Your task to perform on an android device: Open calendar and show me the first week of next month Image 0: 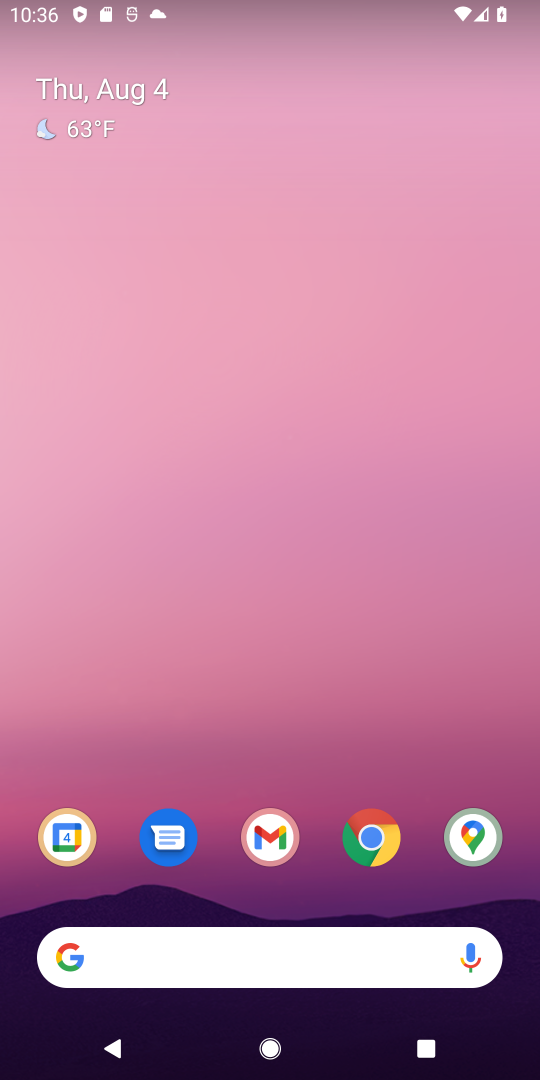
Step 0: drag from (319, 900) to (317, 1)
Your task to perform on an android device: Open calendar and show me the first week of next month Image 1: 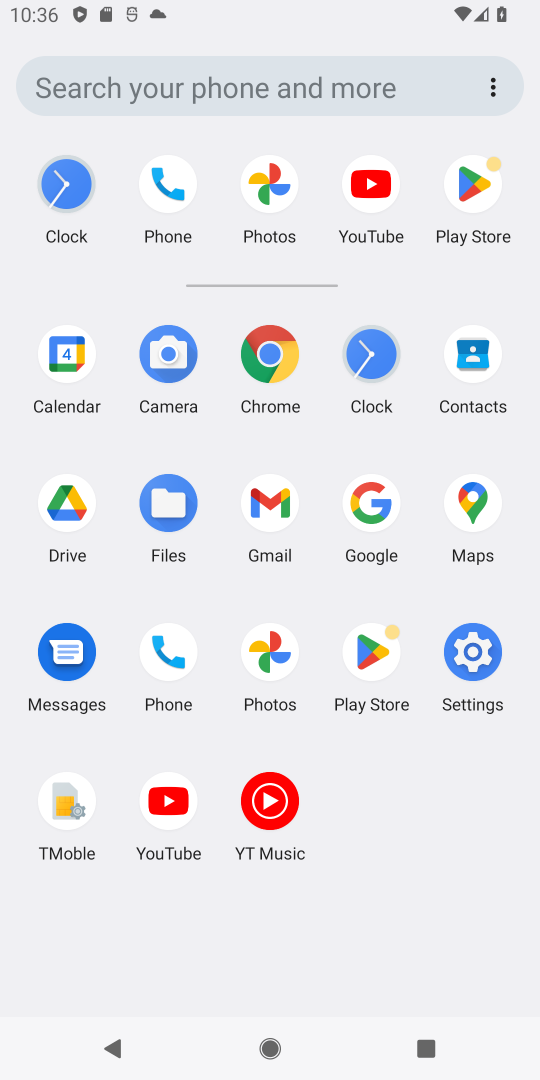
Step 1: click (59, 346)
Your task to perform on an android device: Open calendar and show me the first week of next month Image 2: 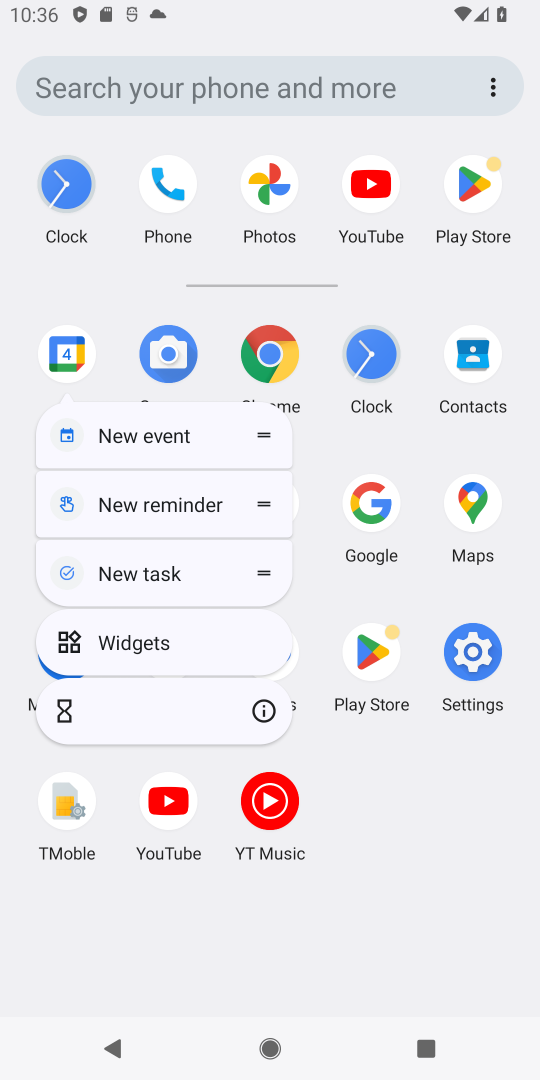
Step 2: click (63, 352)
Your task to perform on an android device: Open calendar and show me the first week of next month Image 3: 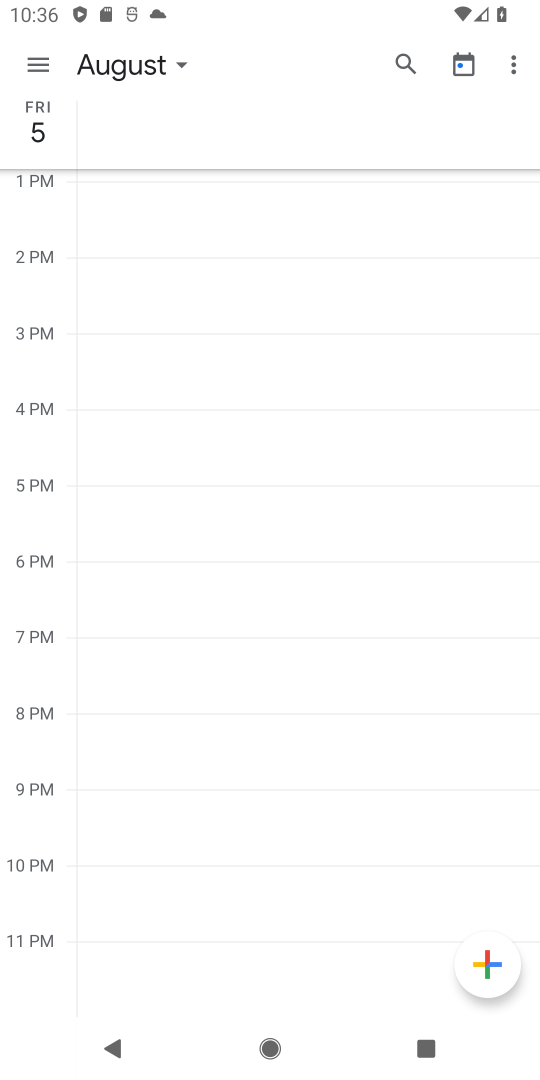
Step 3: click (43, 54)
Your task to perform on an android device: Open calendar and show me the first week of next month Image 4: 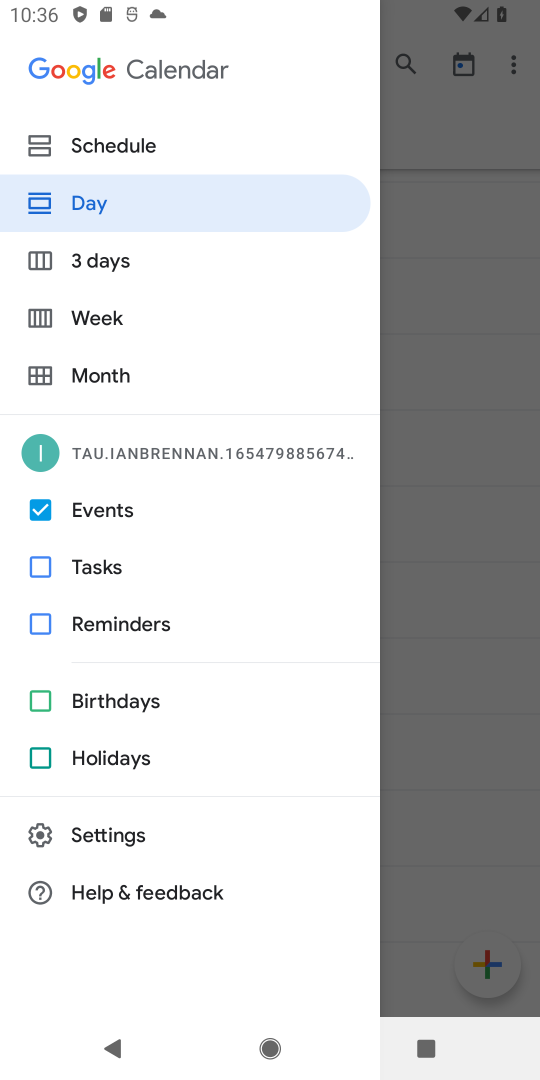
Step 4: click (90, 313)
Your task to perform on an android device: Open calendar and show me the first week of next month Image 5: 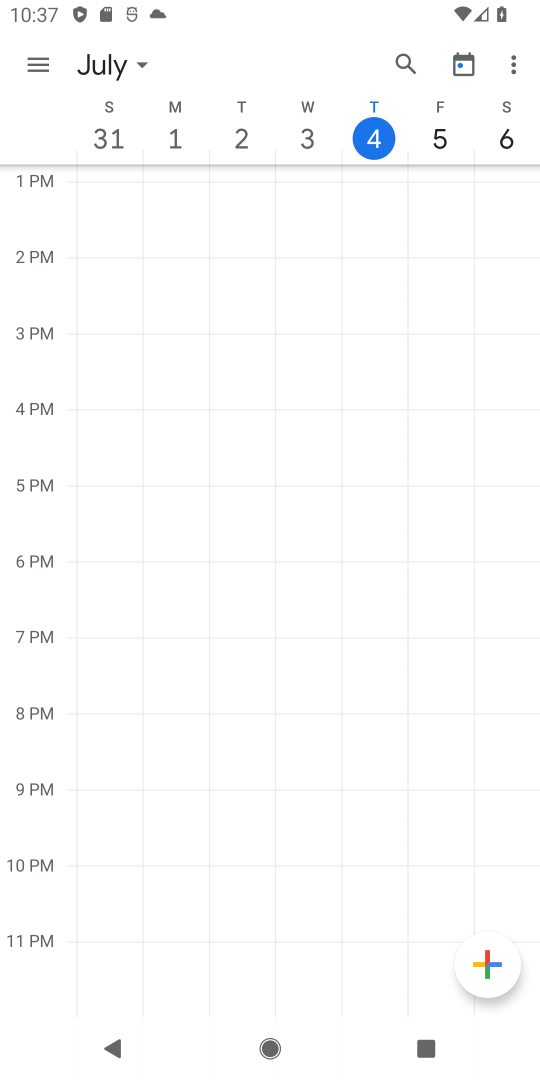
Step 5: click (138, 62)
Your task to perform on an android device: Open calendar and show me the first week of next month Image 6: 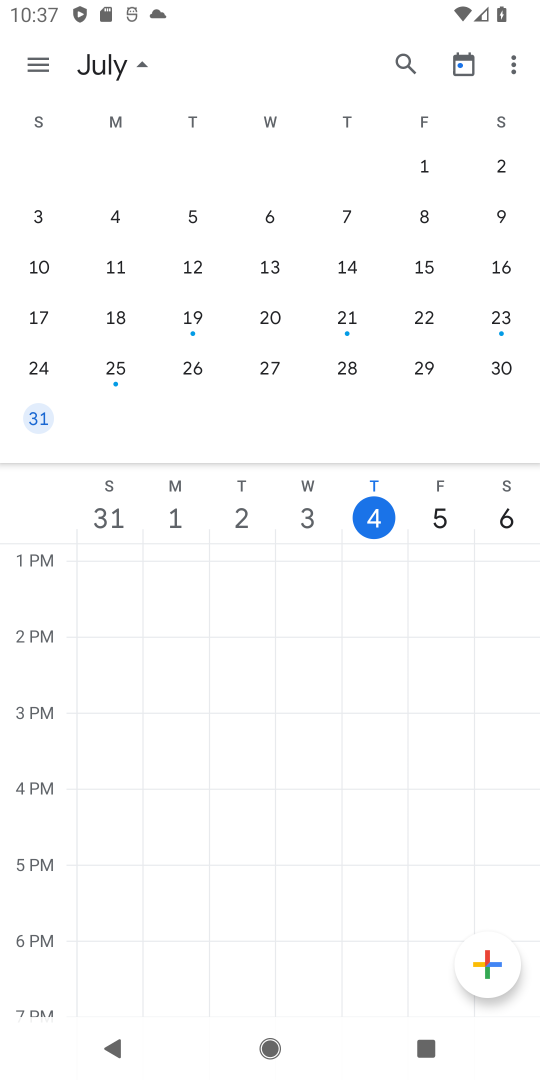
Step 6: drag from (496, 280) to (17, 268)
Your task to perform on an android device: Open calendar and show me the first week of next month Image 7: 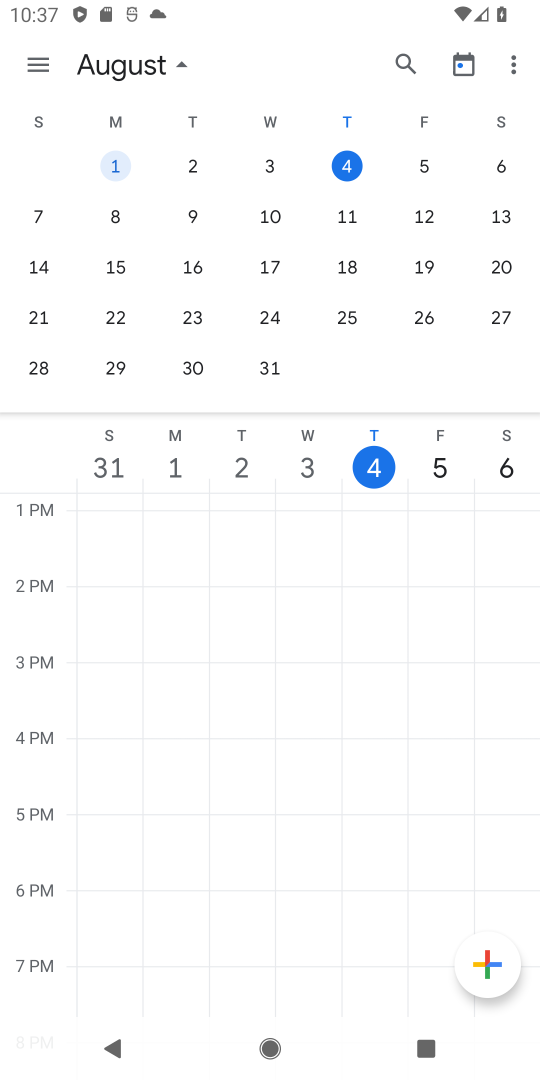
Step 7: drag from (489, 265) to (7, 281)
Your task to perform on an android device: Open calendar and show me the first week of next month Image 8: 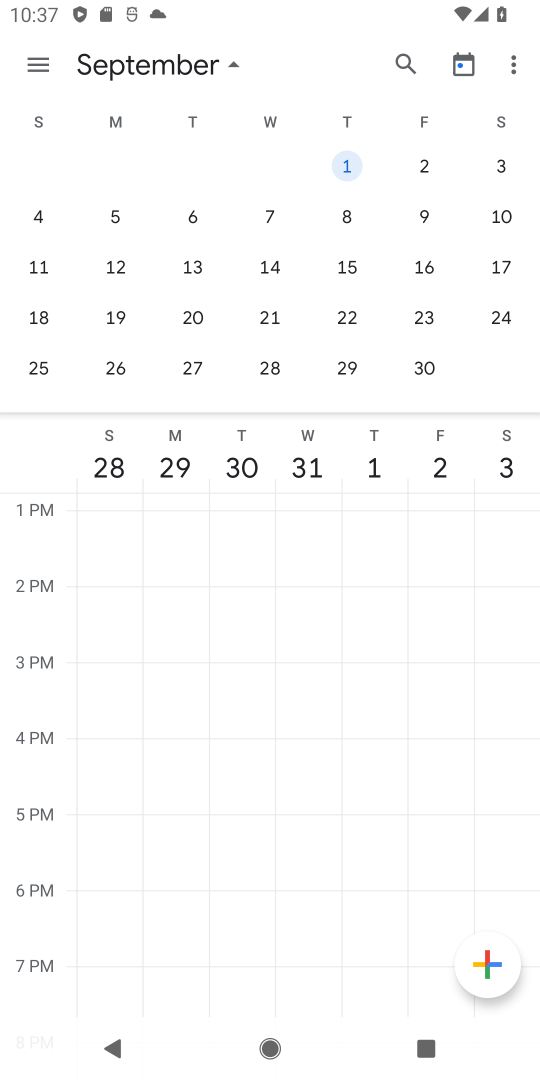
Step 8: click (36, 215)
Your task to perform on an android device: Open calendar and show me the first week of next month Image 9: 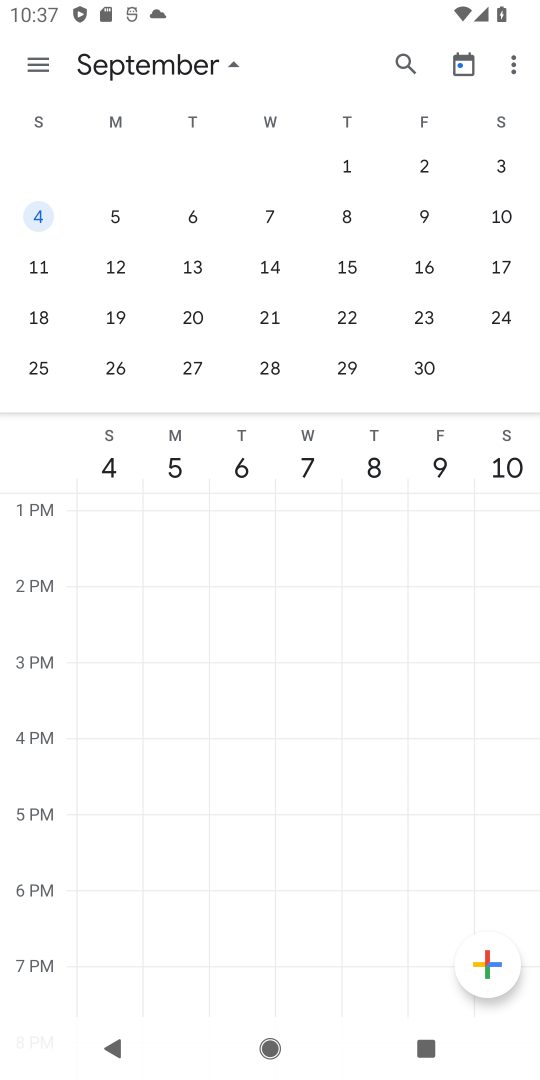
Step 9: task complete